Your task to perform on an android device: Open Yahoo.com Image 0: 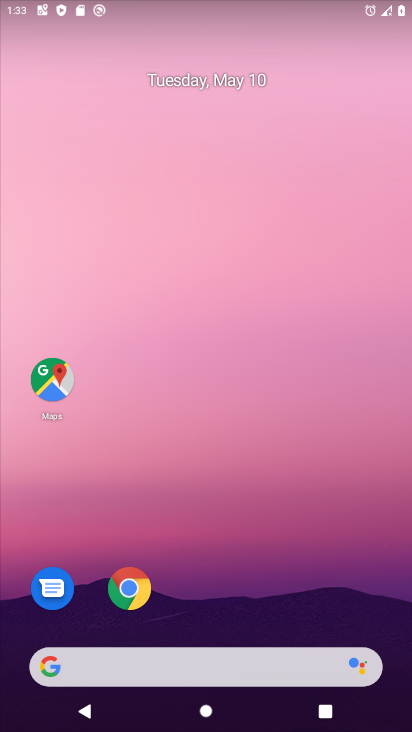
Step 0: click (119, 578)
Your task to perform on an android device: Open Yahoo.com Image 1: 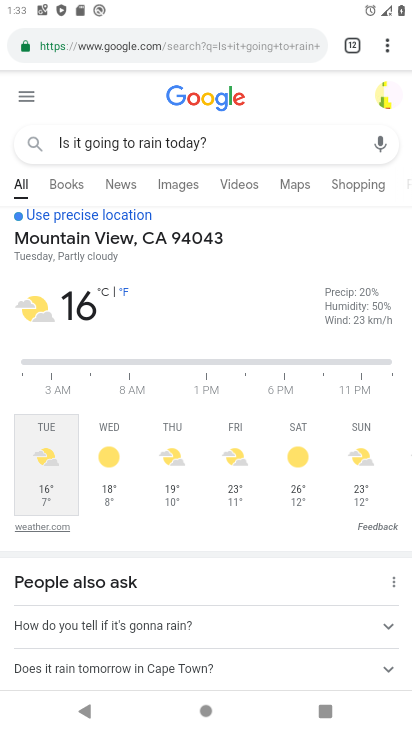
Step 1: click (380, 45)
Your task to perform on an android device: Open Yahoo.com Image 2: 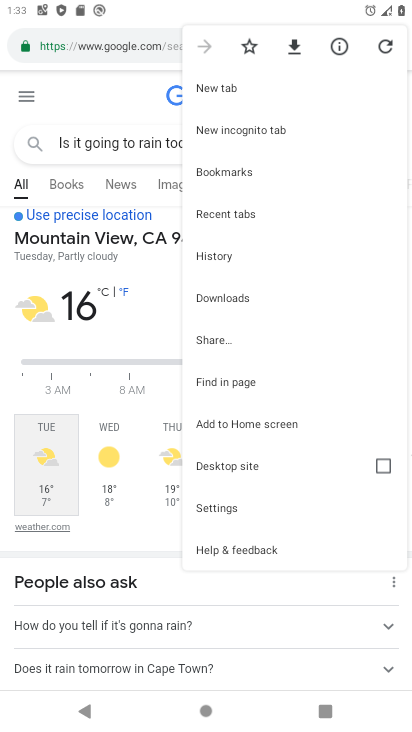
Step 2: click (240, 84)
Your task to perform on an android device: Open Yahoo.com Image 3: 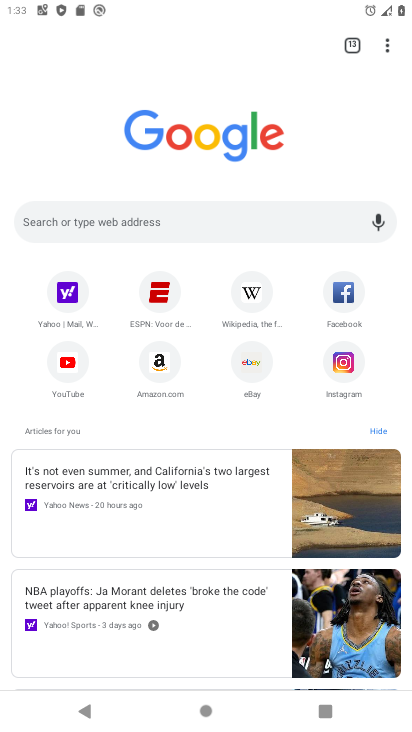
Step 3: click (65, 296)
Your task to perform on an android device: Open Yahoo.com Image 4: 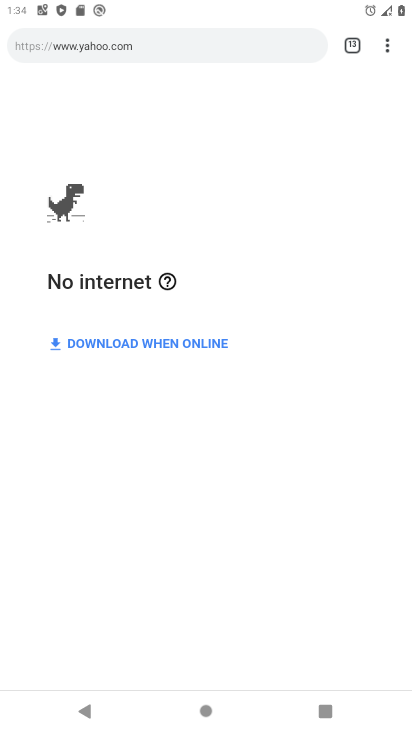
Step 4: task complete